Your task to perform on an android device: Go to Yahoo.com Image 0: 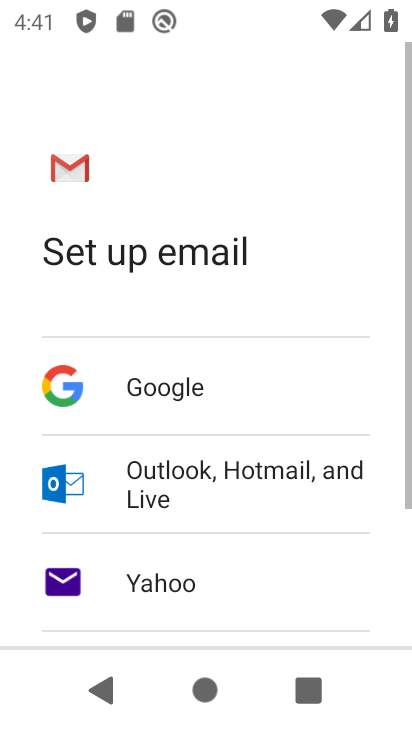
Step 0: press home button
Your task to perform on an android device: Go to Yahoo.com Image 1: 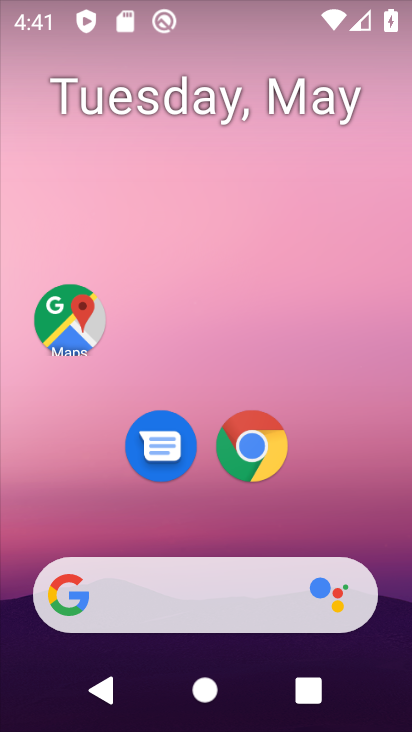
Step 1: click (246, 439)
Your task to perform on an android device: Go to Yahoo.com Image 2: 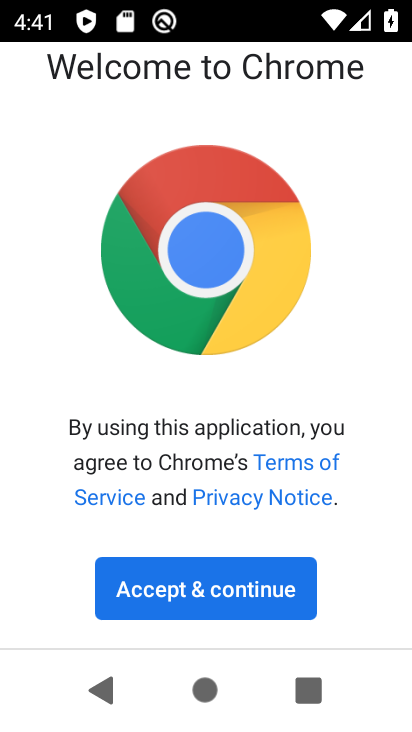
Step 2: click (218, 603)
Your task to perform on an android device: Go to Yahoo.com Image 3: 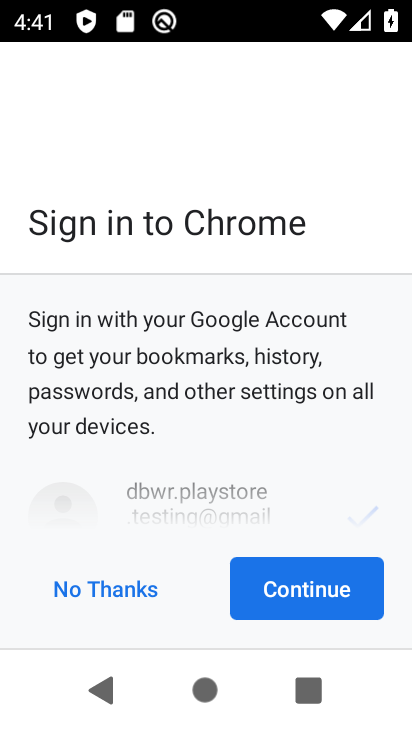
Step 3: click (218, 603)
Your task to perform on an android device: Go to Yahoo.com Image 4: 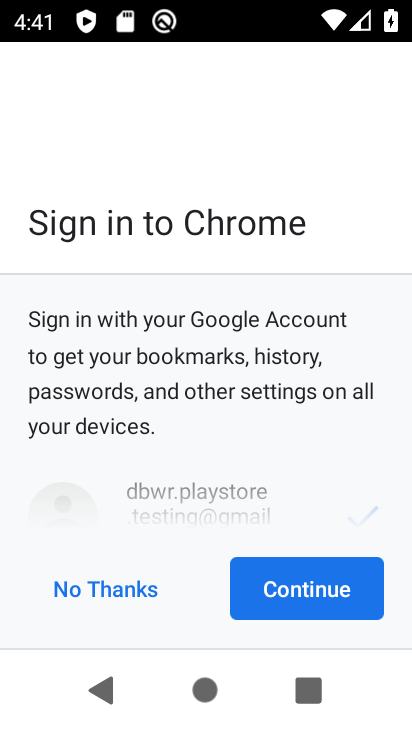
Step 4: click (269, 603)
Your task to perform on an android device: Go to Yahoo.com Image 5: 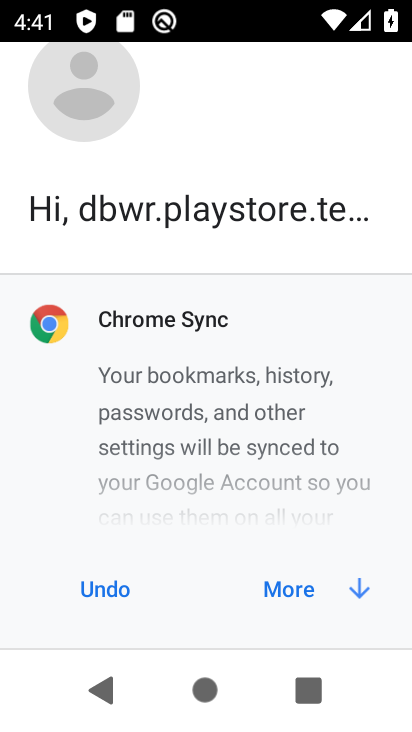
Step 5: click (323, 585)
Your task to perform on an android device: Go to Yahoo.com Image 6: 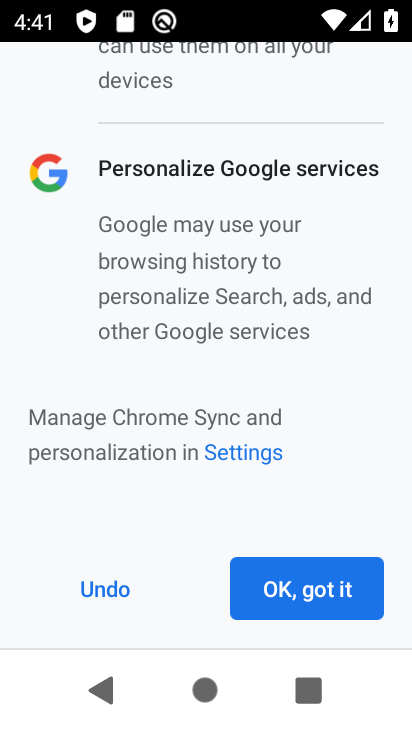
Step 6: click (302, 593)
Your task to perform on an android device: Go to Yahoo.com Image 7: 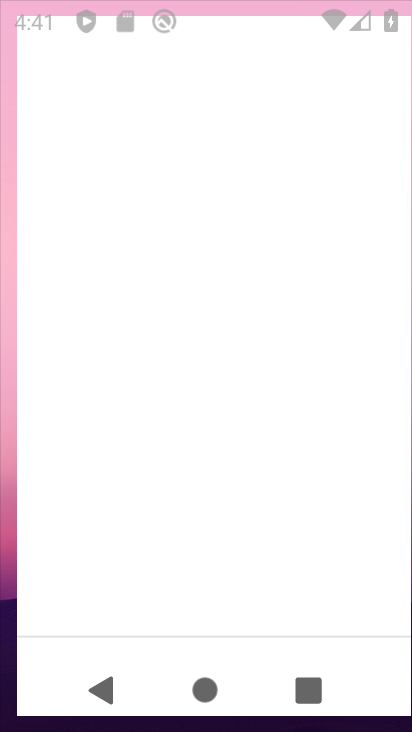
Step 7: click (302, 593)
Your task to perform on an android device: Go to Yahoo.com Image 8: 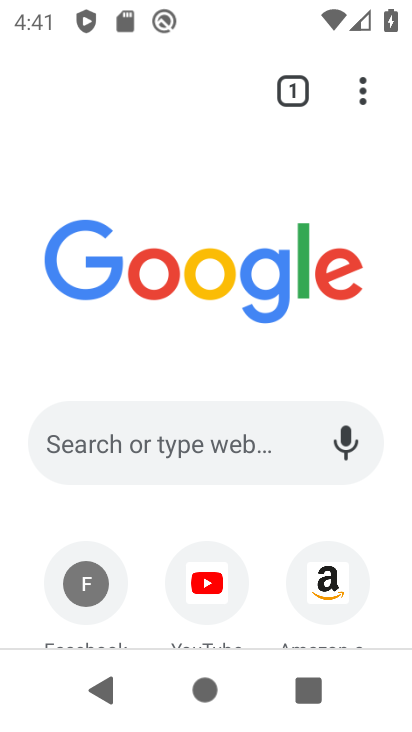
Step 8: click (214, 430)
Your task to perform on an android device: Go to Yahoo.com Image 9: 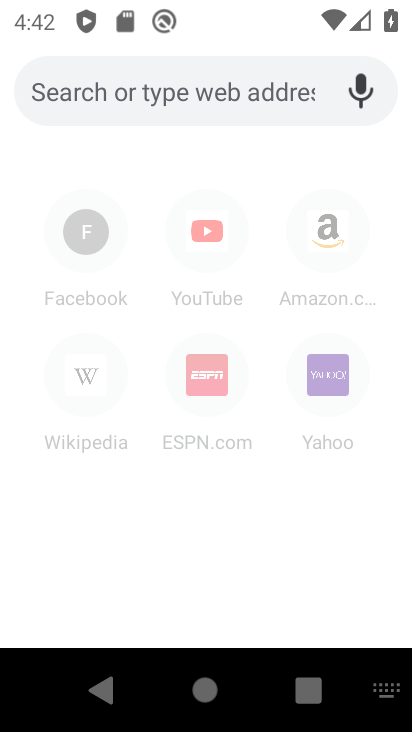
Step 9: type "Yahoo.com"
Your task to perform on an android device: Go to Yahoo.com Image 10: 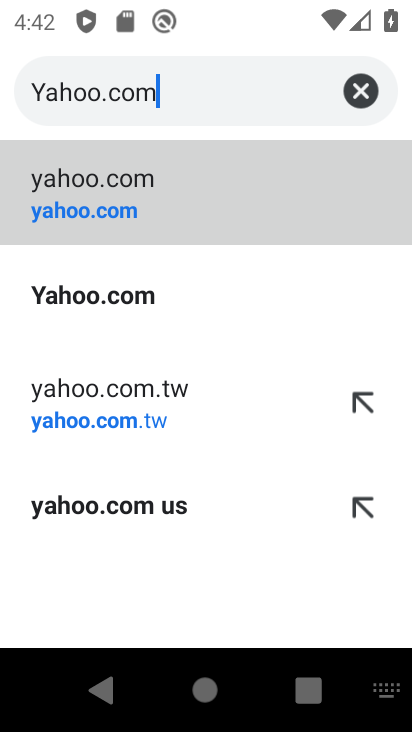
Step 10: click (111, 208)
Your task to perform on an android device: Go to Yahoo.com Image 11: 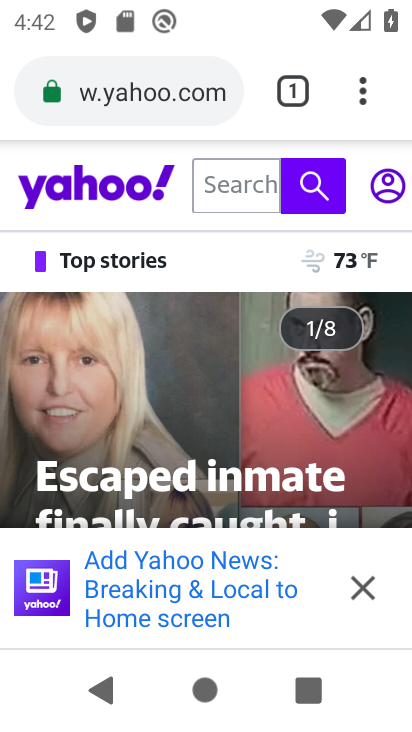
Step 11: task complete